Your task to perform on an android device: change alarm snooze length Image 0: 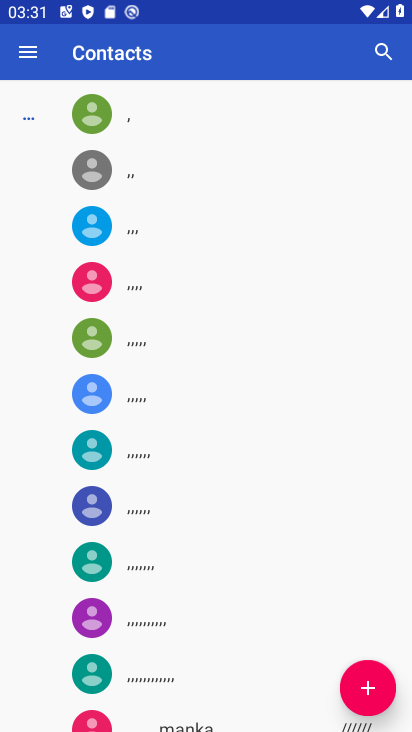
Step 0: press home button
Your task to perform on an android device: change alarm snooze length Image 1: 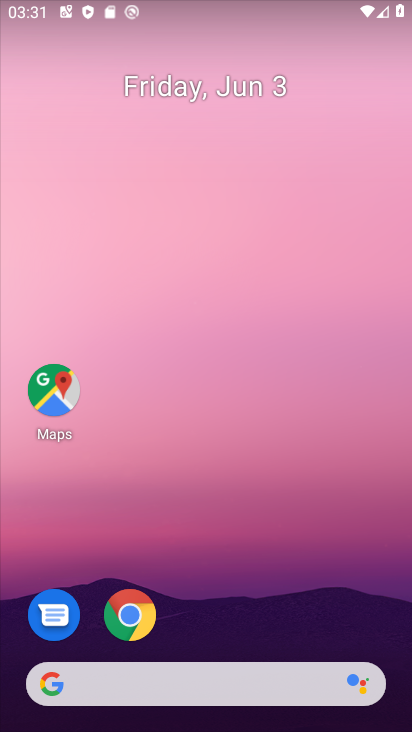
Step 1: drag from (208, 647) to (213, 271)
Your task to perform on an android device: change alarm snooze length Image 2: 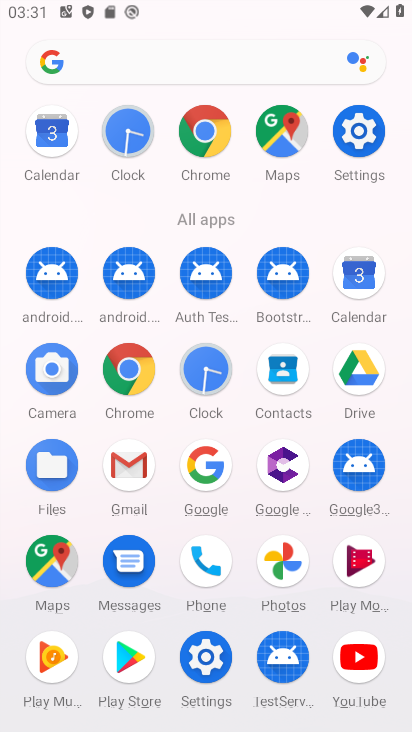
Step 2: click (212, 379)
Your task to perform on an android device: change alarm snooze length Image 3: 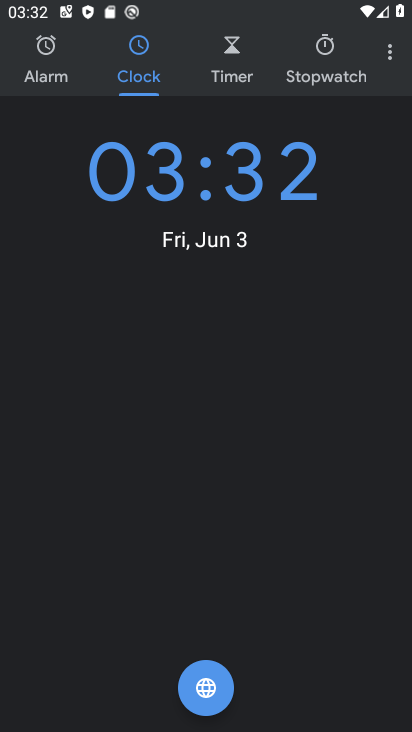
Step 3: click (378, 51)
Your task to perform on an android device: change alarm snooze length Image 4: 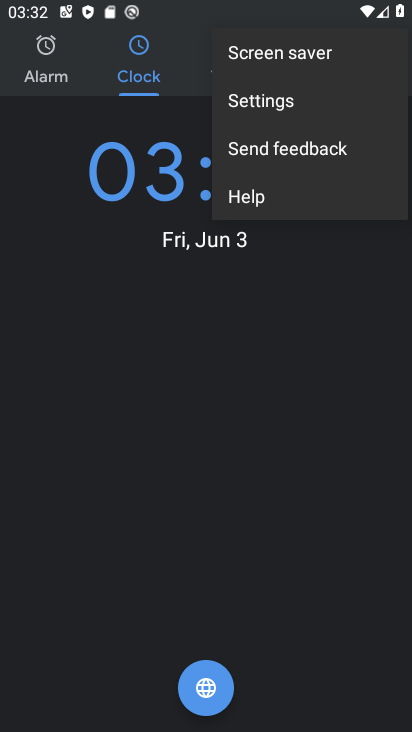
Step 4: click (321, 108)
Your task to perform on an android device: change alarm snooze length Image 5: 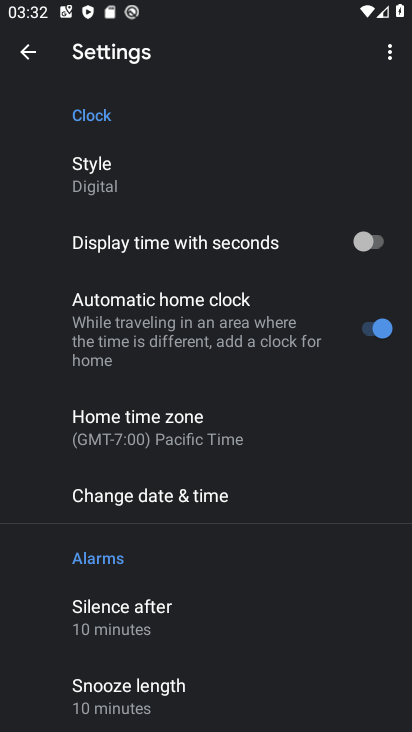
Step 5: drag from (263, 680) to (227, 276)
Your task to perform on an android device: change alarm snooze length Image 6: 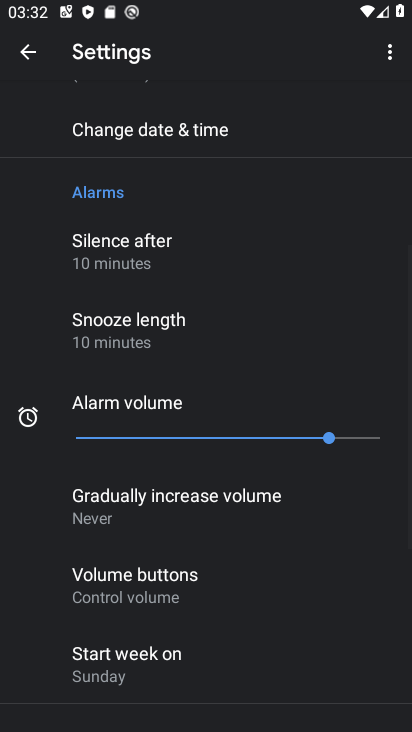
Step 6: click (219, 310)
Your task to perform on an android device: change alarm snooze length Image 7: 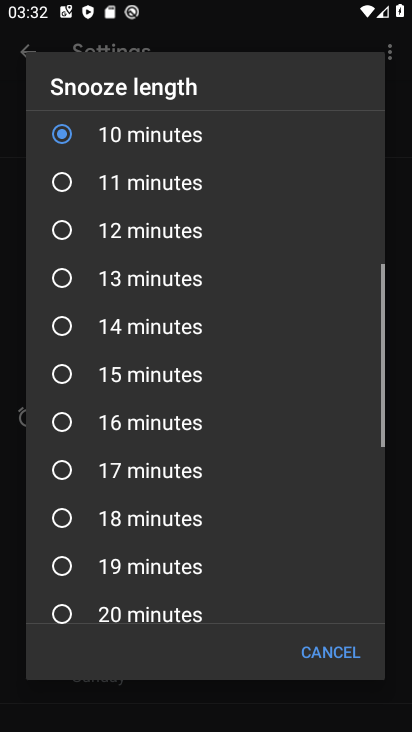
Step 7: click (210, 476)
Your task to perform on an android device: change alarm snooze length Image 8: 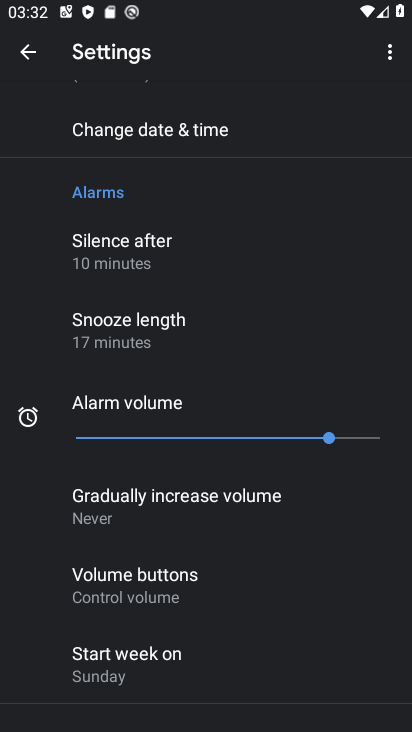
Step 8: task complete